Your task to perform on an android device: open wifi settings Image 0: 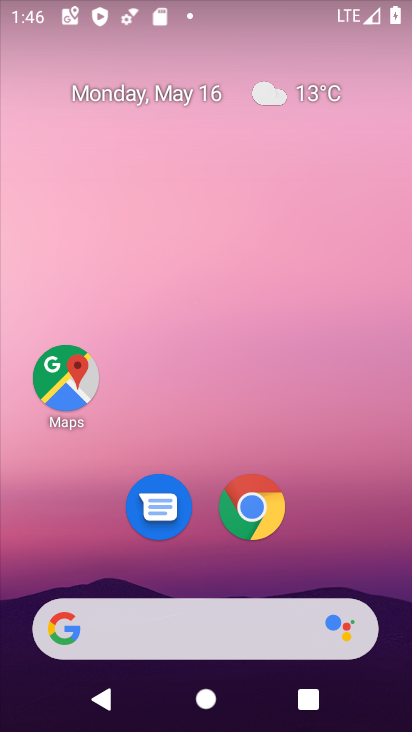
Step 0: drag from (353, 523) to (240, 52)
Your task to perform on an android device: open wifi settings Image 1: 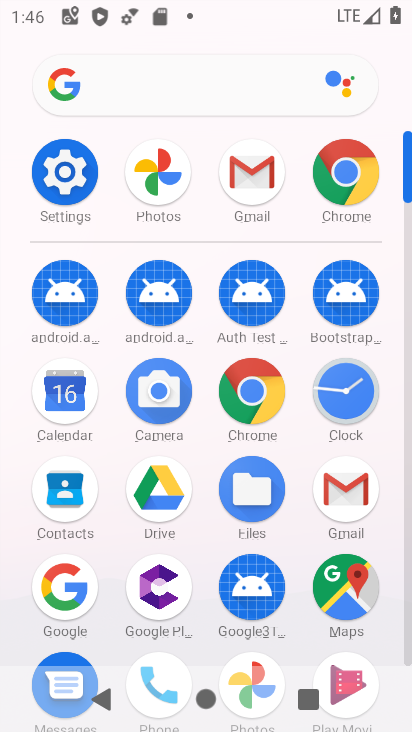
Step 1: click (73, 173)
Your task to perform on an android device: open wifi settings Image 2: 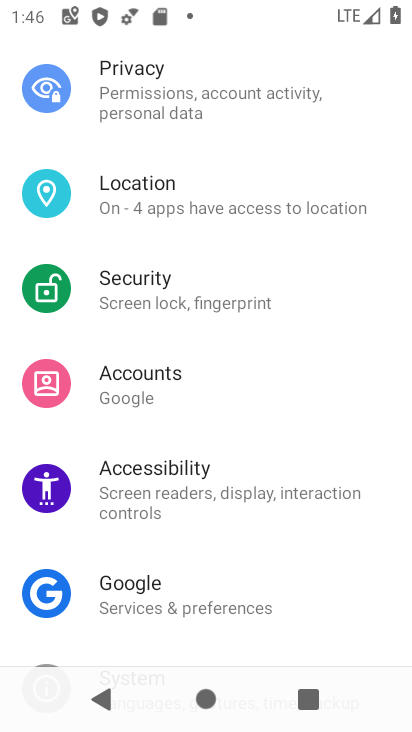
Step 2: drag from (269, 127) to (296, 589)
Your task to perform on an android device: open wifi settings Image 3: 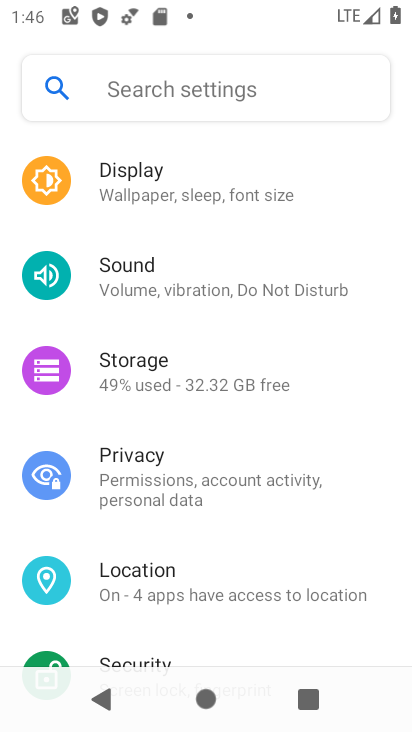
Step 3: drag from (258, 199) to (231, 621)
Your task to perform on an android device: open wifi settings Image 4: 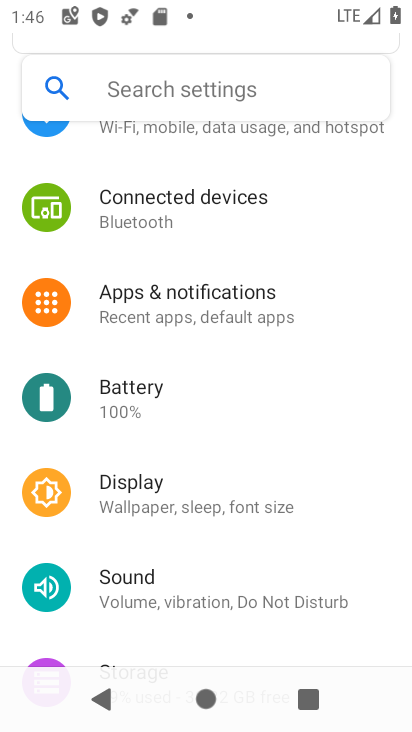
Step 4: drag from (217, 200) to (213, 527)
Your task to perform on an android device: open wifi settings Image 5: 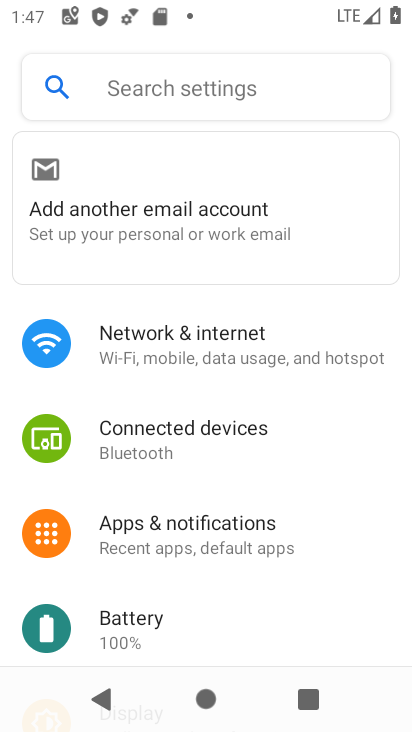
Step 5: click (187, 320)
Your task to perform on an android device: open wifi settings Image 6: 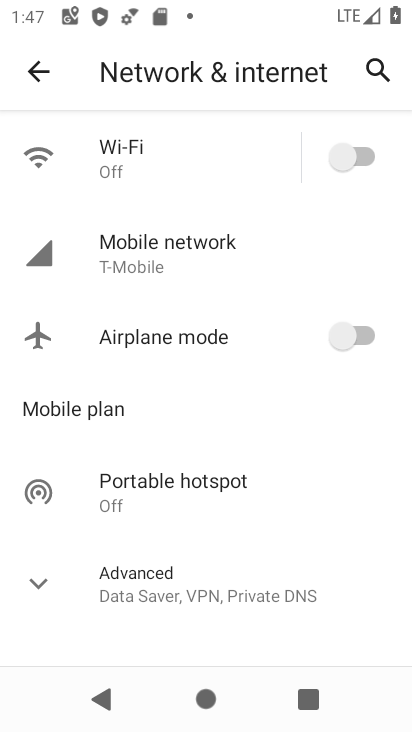
Step 6: click (146, 151)
Your task to perform on an android device: open wifi settings Image 7: 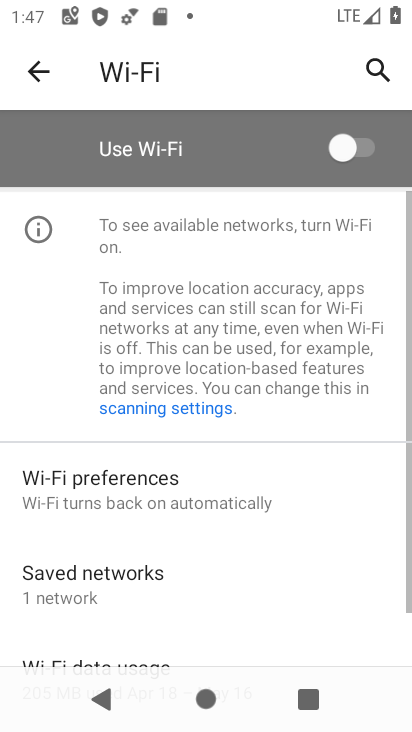
Step 7: task complete